Your task to perform on an android device: Go to calendar. Show me events next week Image 0: 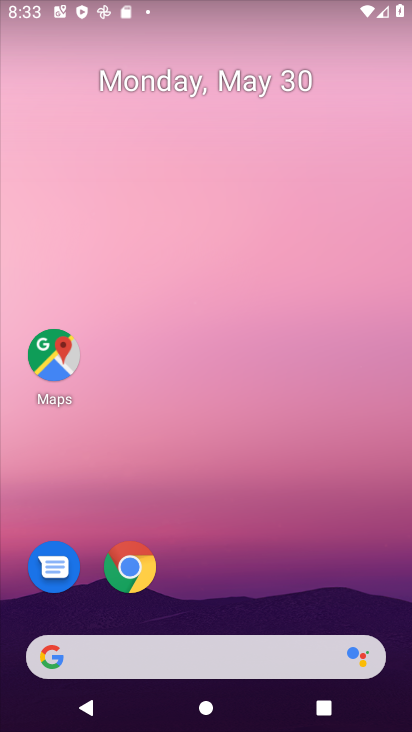
Step 0: drag from (279, 580) to (102, 65)
Your task to perform on an android device: Go to calendar. Show me events next week Image 1: 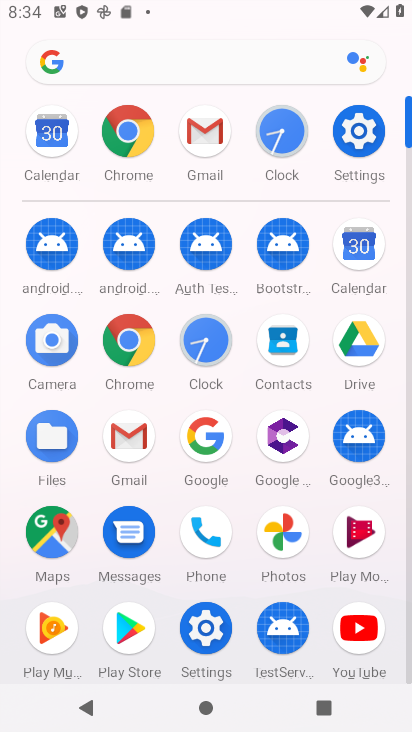
Step 1: click (360, 242)
Your task to perform on an android device: Go to calendar. Show me events next week Image 2: 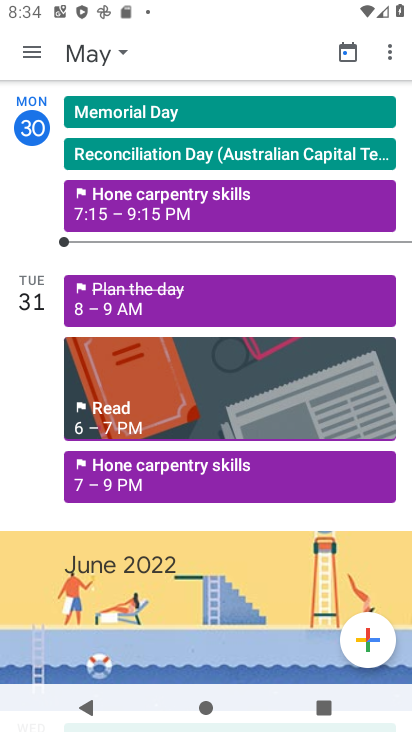
Step 2: task complete